Your task to perform on an android device: toggle pop-ups in chrome Image 0: 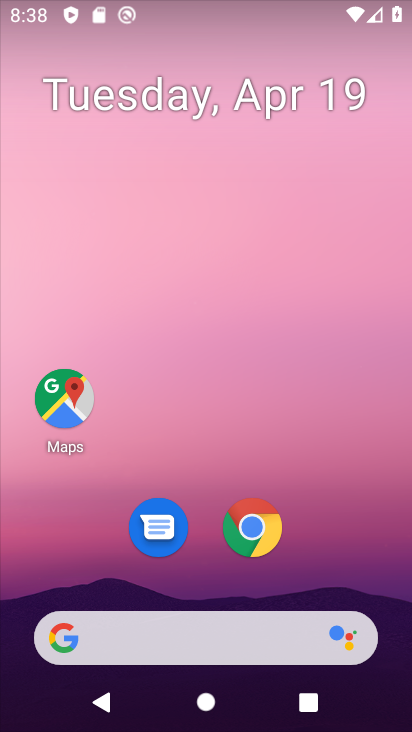
Step 0: drag from (341, 528) to (327, 121)
Your task to perform on an android device: toggle pop-ups in chrome Image 1: 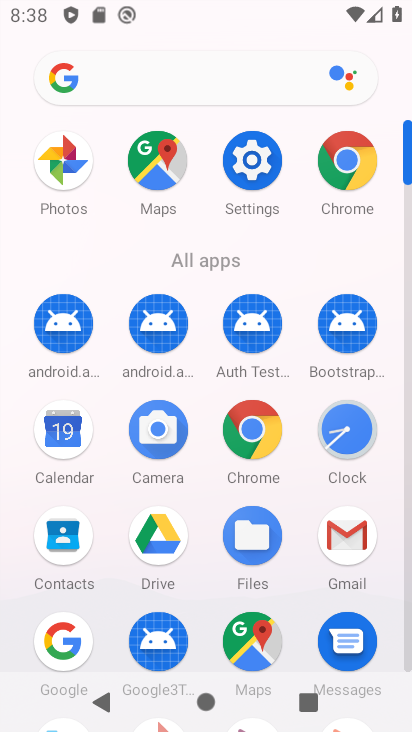
Step 1: click (340, 162)
Your task to perform on an android device: toggle pop-ups in chrome Image 2: 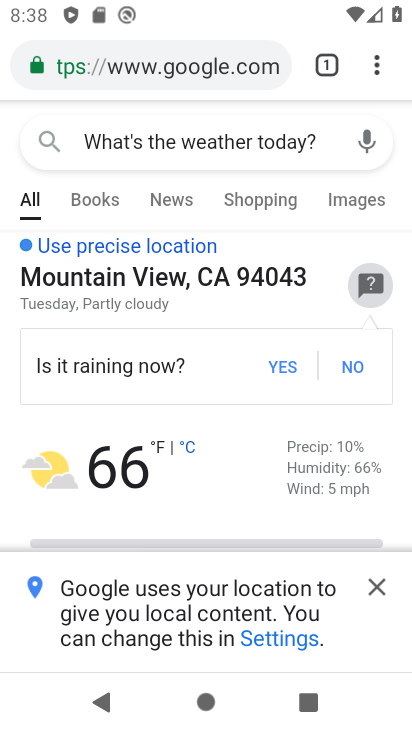
Step 2: click (368, 66)
Your task to perform on an android device: toggle pop-ups in chrome Image 3: 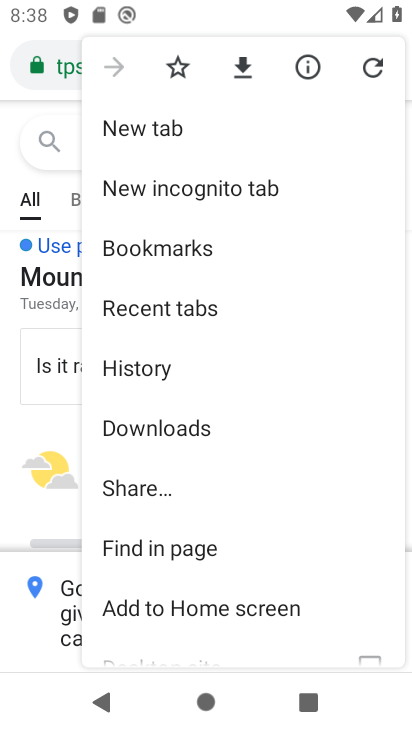
Step 3: drag from (271, 580) to (268, 159)
Your task to perform on an android device: toggle pop-ups in chrome Image 4: 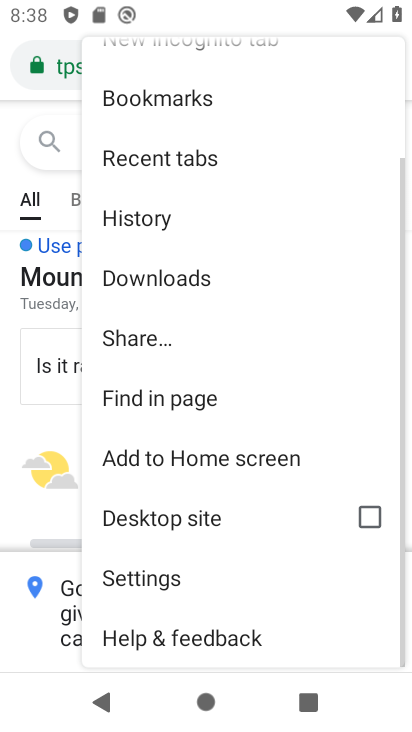
Step 4: click (196, 571)
Your task to perform on an android device: toggle pop-ups in chrome Image 5: 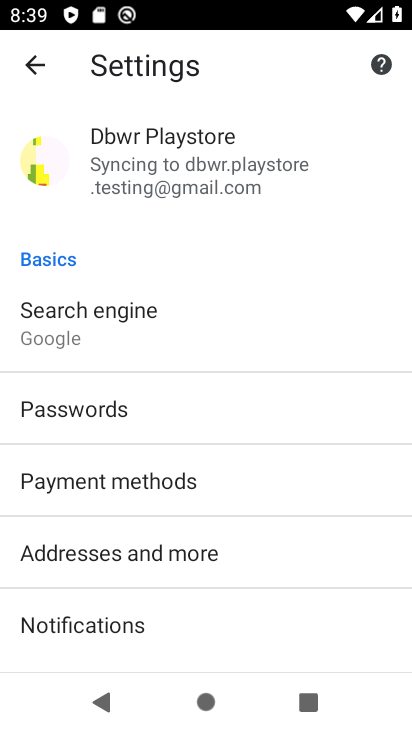
Step 5: drag from (288, 626) to (314, 249)
Your task to perform on an android device: toggle pop-ups in chrome Image 6: 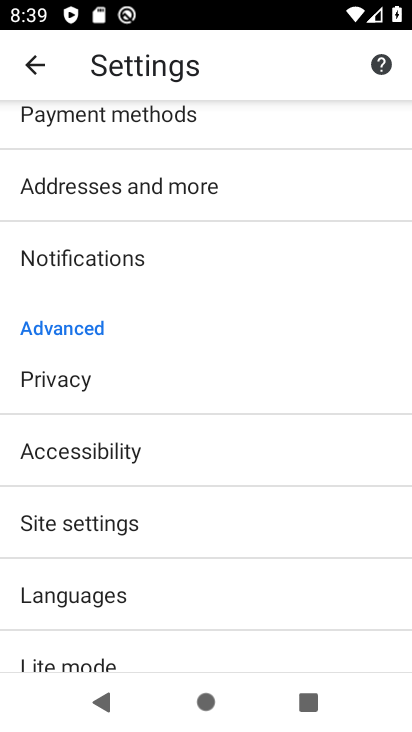
Step 6: click (204, 521)
Your task to perform on an android device: toggle pop-ups in chrome Image 7: 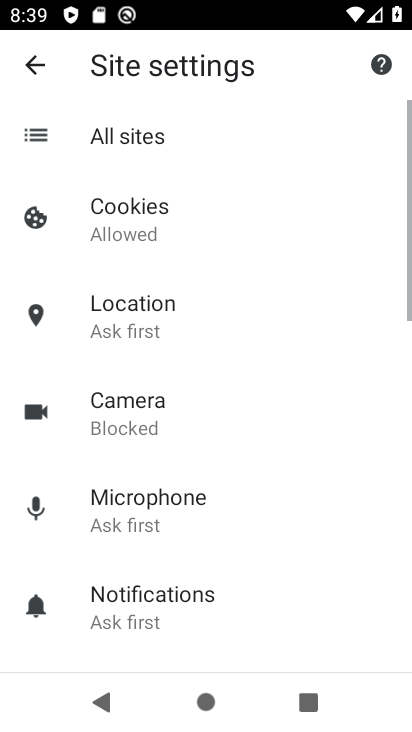
Step 7: drag from (239, 480) to (269, 176)
Your task to perform on an android device: toggle pop-ups in chrome Image 8: 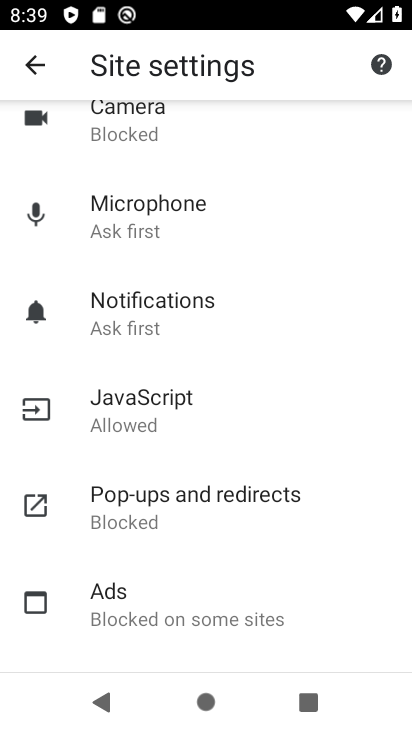
Step 8: click (171, 513)
Your task to perform on an android device: toggle pop-ups in chrome Image 9: 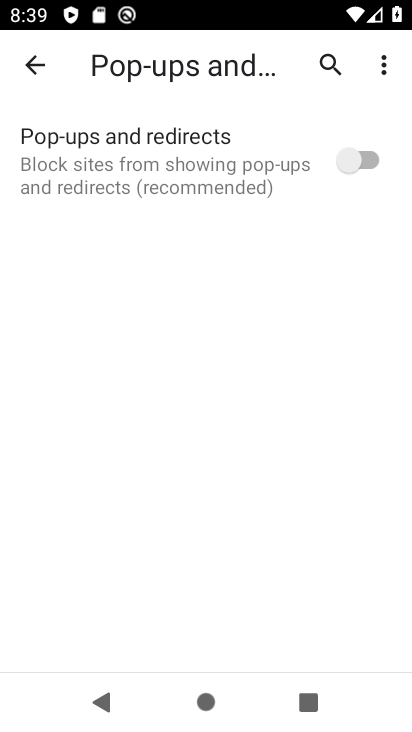
Step 9: click (356, 151)
Your task to perform on an android device: toggle pop-ups in chrome Image 10: 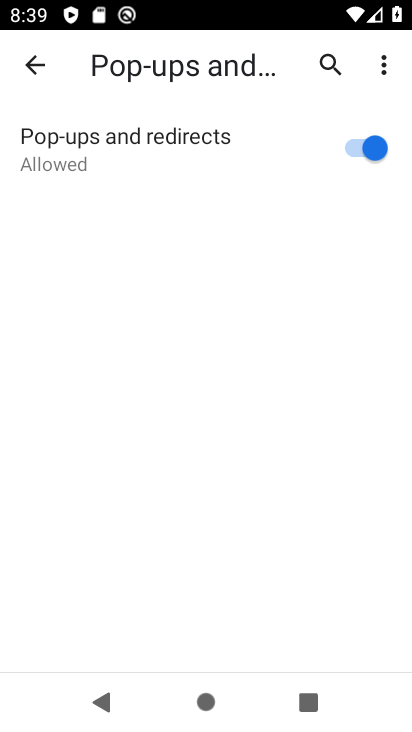
Step 10: task complete